Your task to perform on an android device: delete browsing data in the chrome app Image 0: 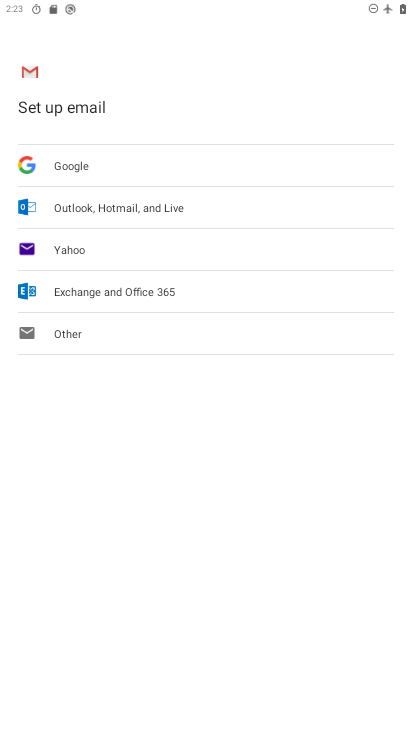
Step 0: press home button
Your task to perform on an android device: delete browsing data in the chrome app Image 1: 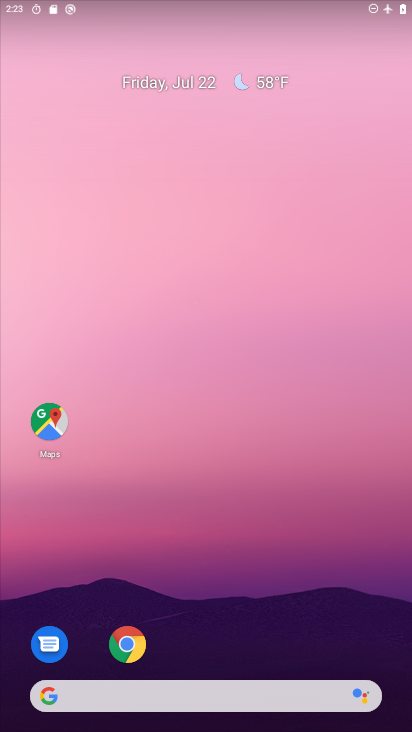
Step 1: click (117, 650)
Your task to perform on an android device: delete browsing data in the chrome app Image 2: 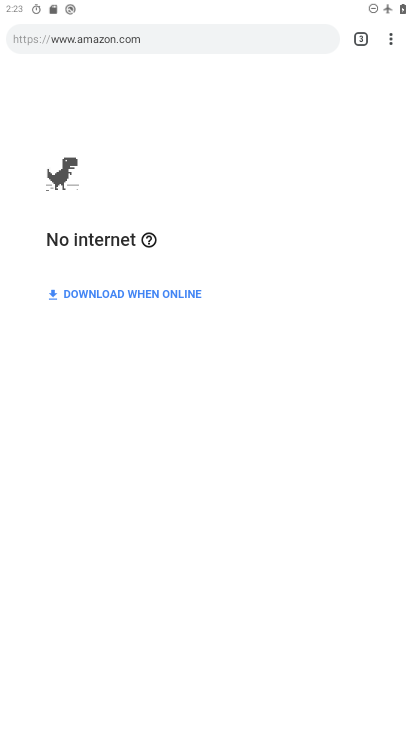
Step 2: click (396, 38)
Your task to perform on an android device: delete browsing data in the chrome app Image 3: 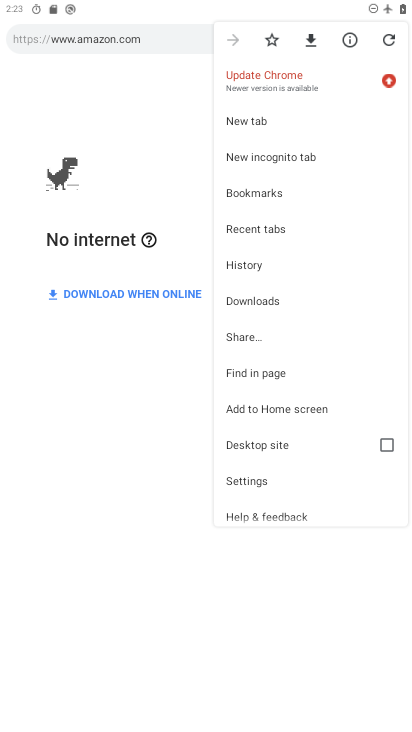
Step 3: click (252, 271)
Your task to perform on an android device: delete browsing data in the chrome app Image 4: 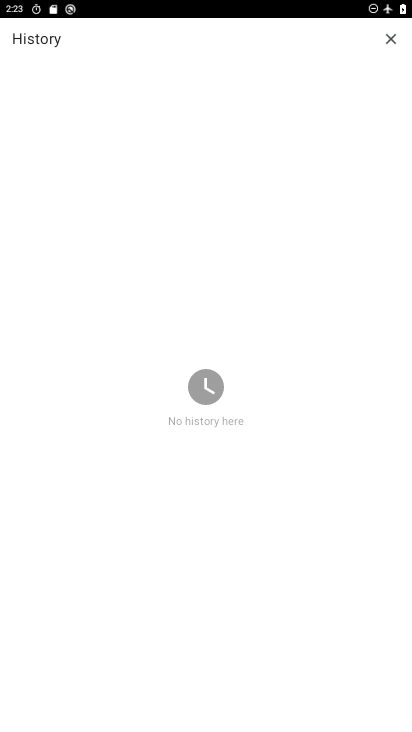
Step 4: task complete